Your task to perform on an android device: Search for sushi restaurants on Maps Image 0: 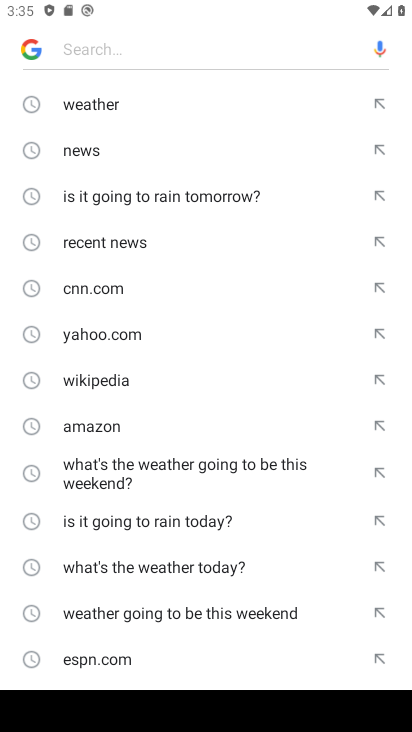
Step 0: press back button
Your task to perform on an android device: Search for sushi restaurants on Maps Image 1: 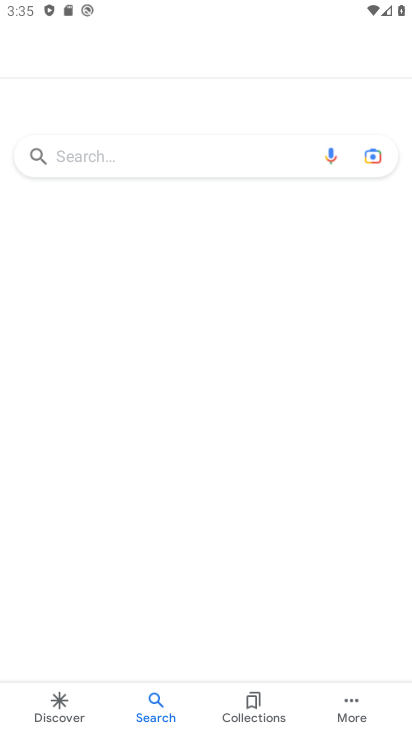
Step 1: press back button
Your task to perform on an android device: Search for sushi restaurants on Maps Image 2: 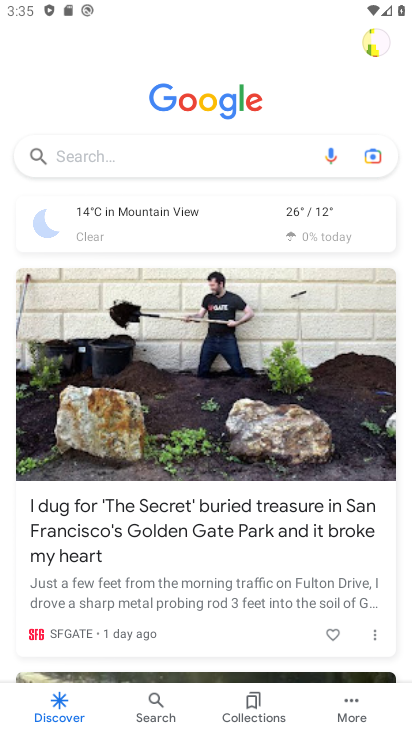
Step 2: press back button
Your task to perform on an android device: Search for sushi restaurants on Maps Image 3: 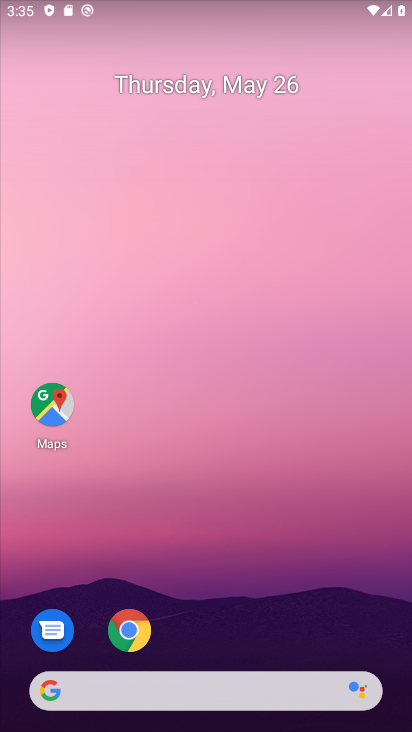
Step 3: click (53, 406)
Your task to perform on an android device: Search for sushi restaurants on Maps Image 4: 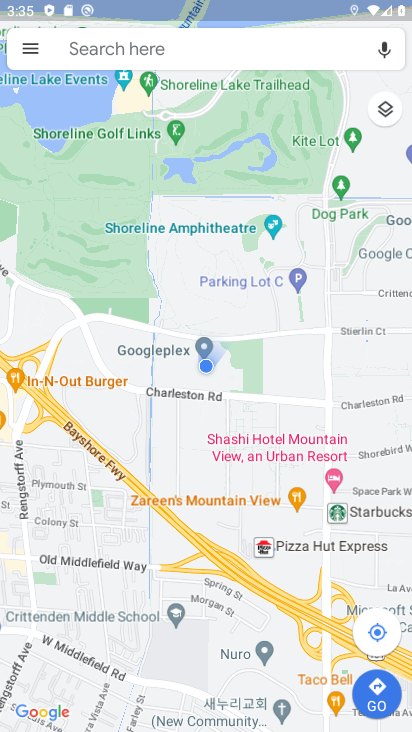
Step 4: click (122, 58)
Your task to perform on an android device: Search for sushi restaurants on Maps Image 5: 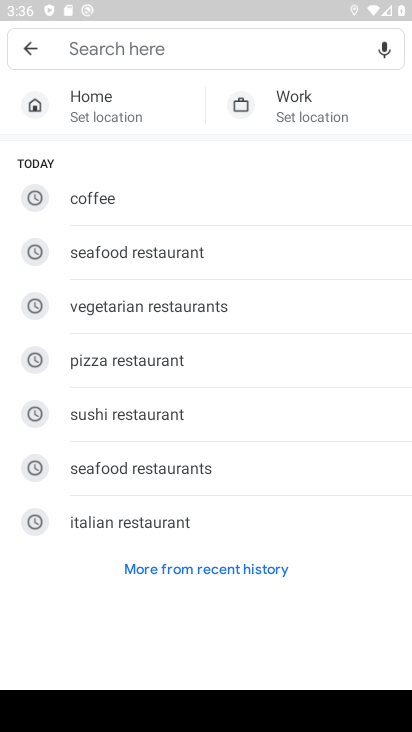
Step 5: type "sushi restaurants"
Your task to perform on an android device: Search for sushi restaurants on Maps Image 6: 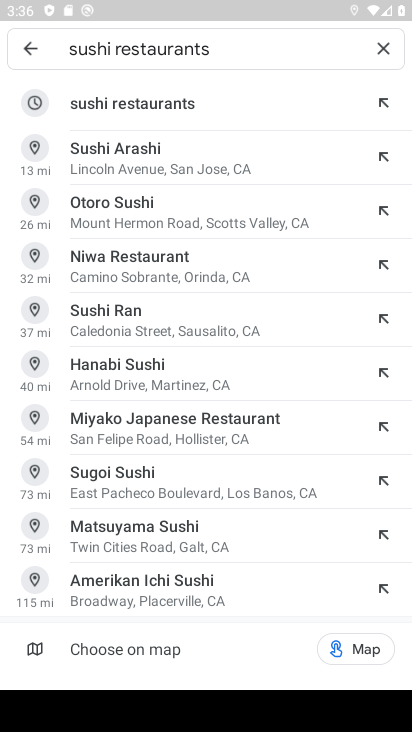
Step 6: click (170, 102)
Your task to perform on an android device: Search for sushi restaurants on Maps Image 7: 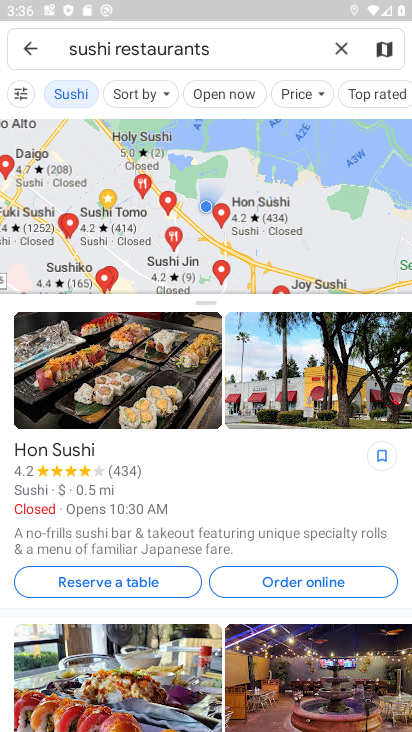
Step 7: task complete